Your task to perform on an android device: create a new album in the google photos Image 0: 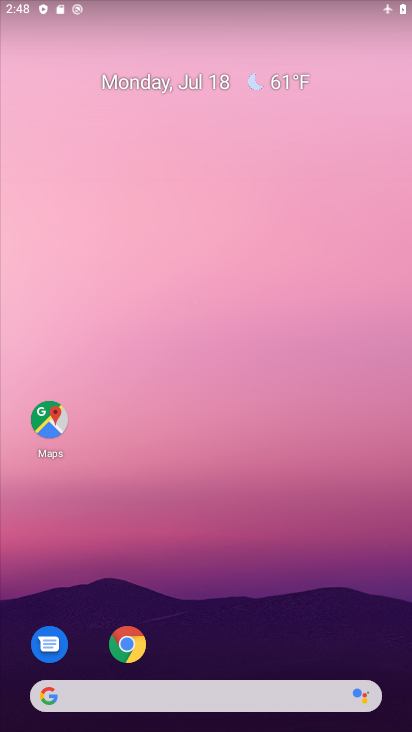
Step 0: drag from (285, 619) to (283, 25)
Your task to perform on an android device: create a new album in the google photos Image 1: 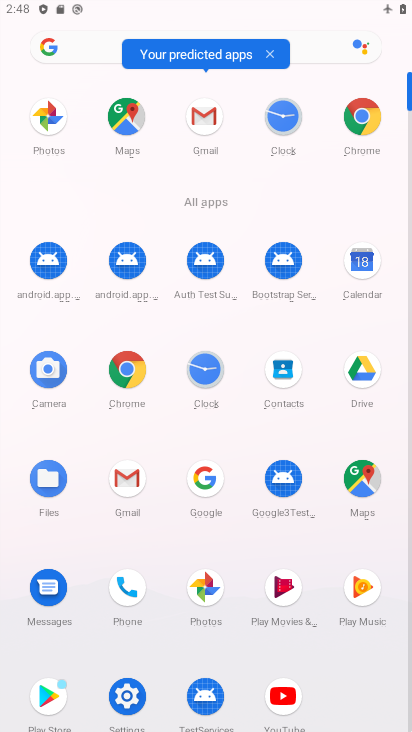
Step 1: click (46, 118)
Your task to perform on an android device: create a new album in the google photos Image 2: 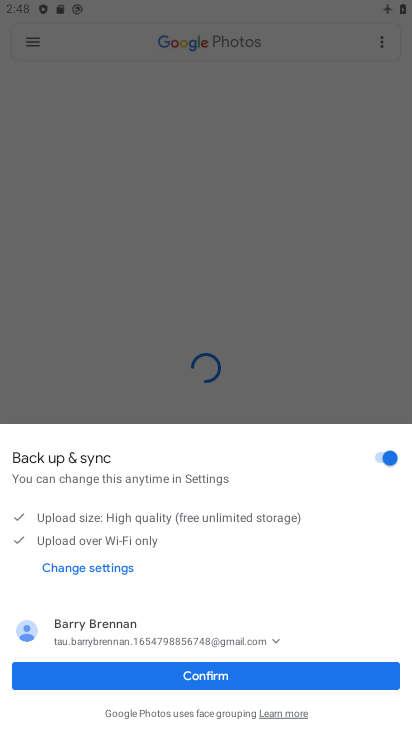
Step 2: click (335, 680)
Your task to perform on an android device: create a new album in the google photos Image 3: 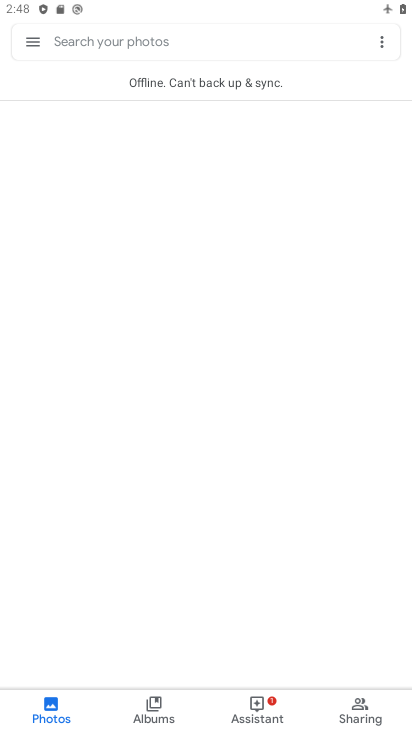
Step 3: task complete